Your task to perform on an android device: Open Google Image 0: 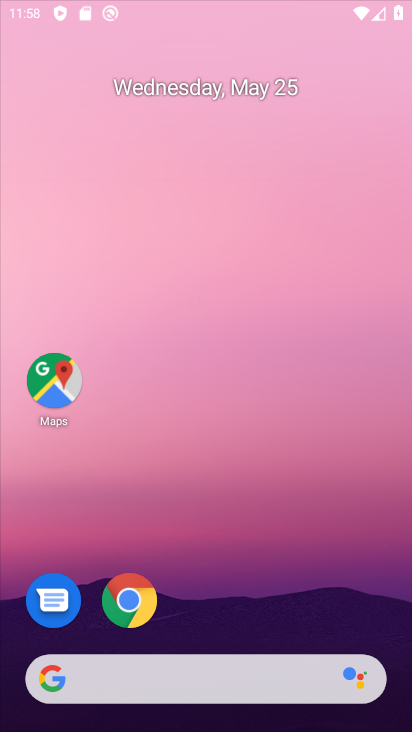
Step 0: drag from (277, 478) to (294, 144)
Your task to perform on an android device: Open Google Image 1: 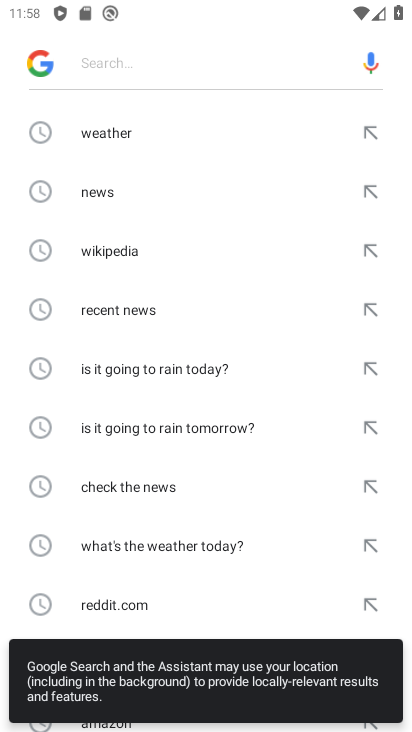
Step 1: press home button
Your task to perform on an android device: Open Google Image 2: 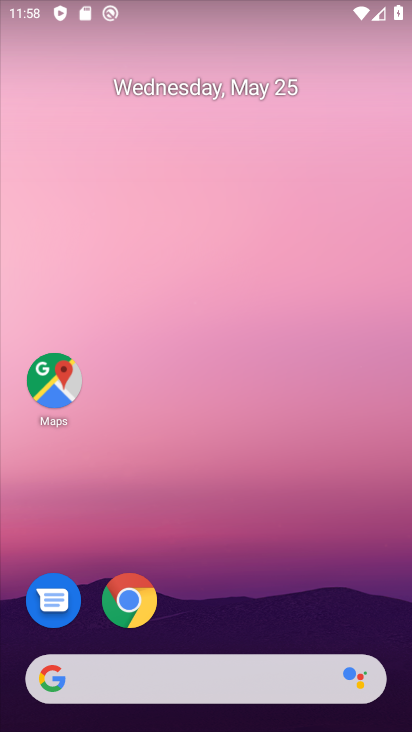
Step 2: drag from (220, 564) to (310, 154)
Your task to perform on an android device: Open Google Image 3: 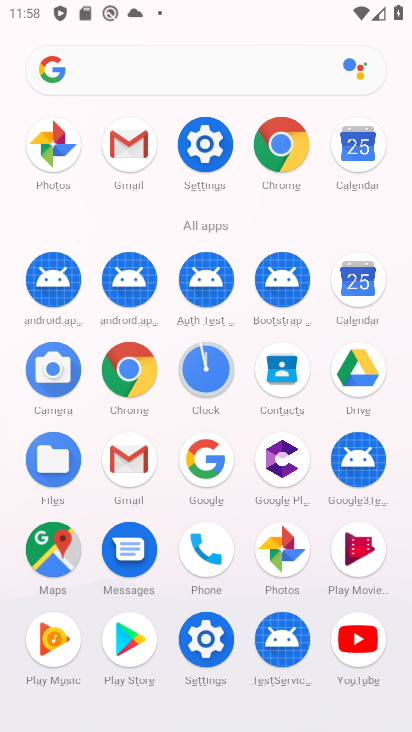
Step 3: click (203, 456)
Your task to perform on an android device: Open Google Image 4: 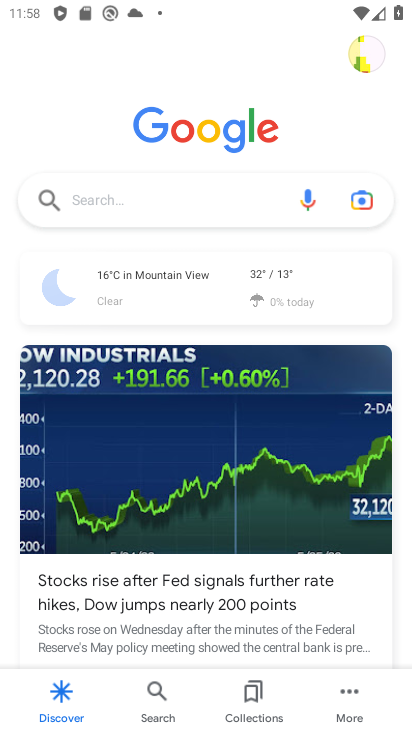
Step 4: task complete